Your task to perform on an android device: Search for seafood restaurants on Google Maps Image 0: 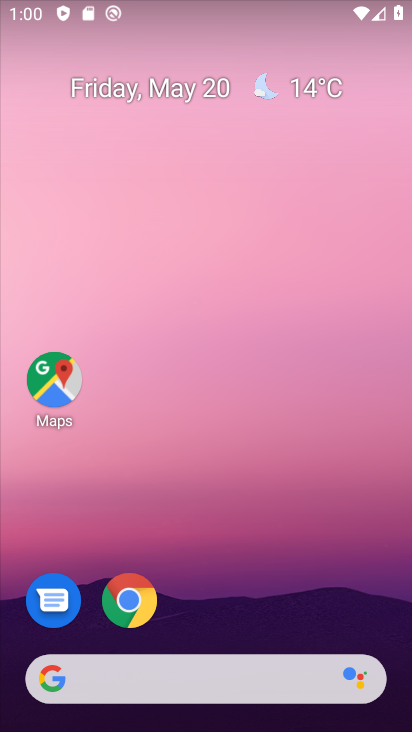
Step 0: click (54, 382)
Your task to perform on an android device: Search for seafood restaurants on Google Maps Image 1: 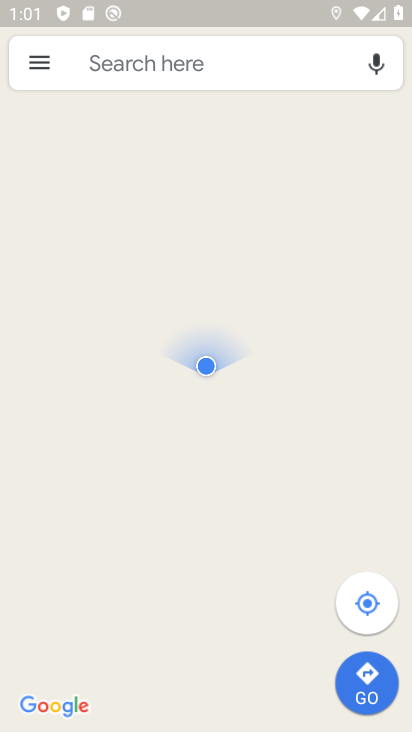
Step 1: click (183, 61)
Your task to perform on an android device: Search for seafood restaurants on Google Maps Image 2: 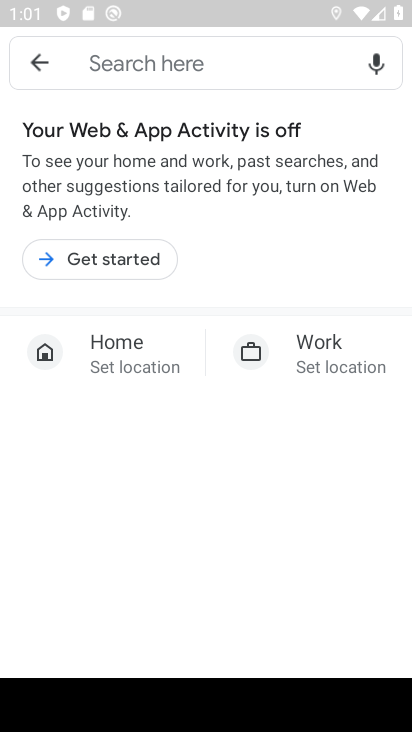
Step 2: click (236, 50)
Your task to perform on an android device: Search for seafood restaurants on Google Maps Image 3: 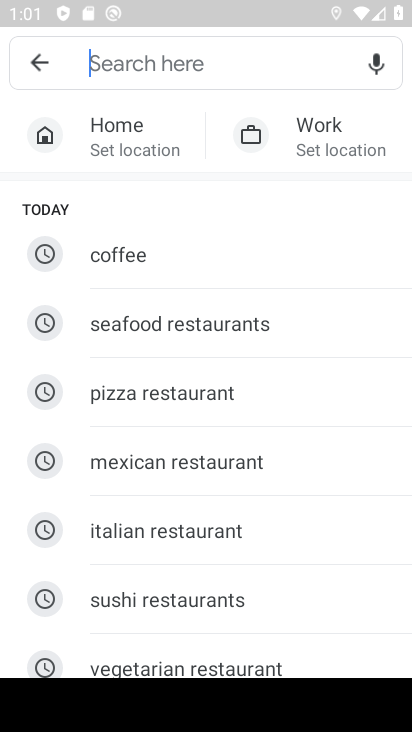
Step 3: type "seafood restaurants"
Your task to perform on an android device: Search for seafood restaurants on Google Maps Image 4: 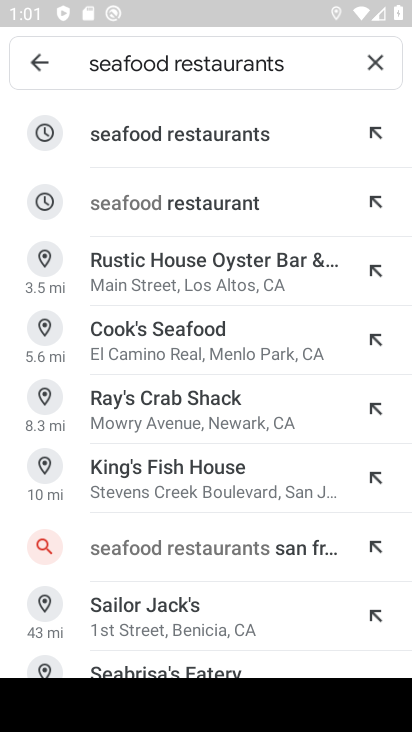
Step 4: click (168, 133)
Your task to perform on an android device: Search for seafood restaurants on Google Maps Image 5: 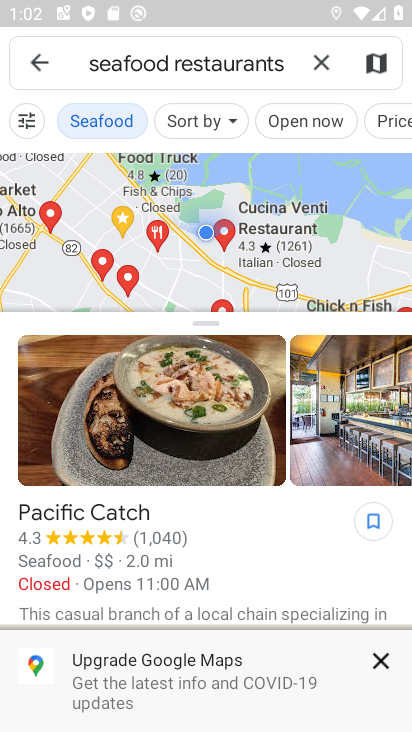
Step 5: task complete